Your task to perform on an android device: read, delete, or share a saved page in the chrome app Image 0: 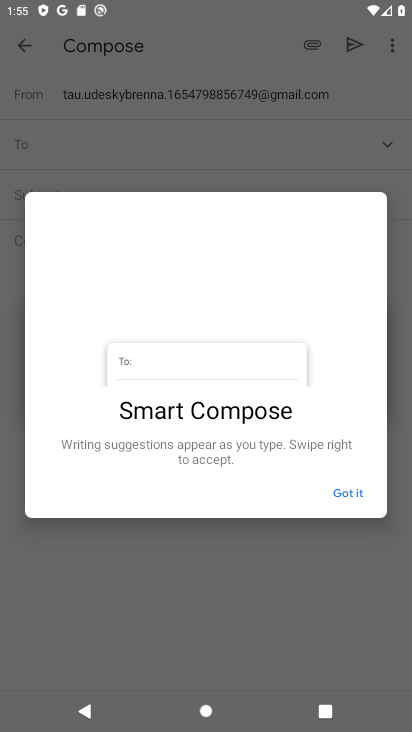
Step 0: press home button
Your task to perform on an android device: read, delete, or share a saved page in the chrome app Image 1: 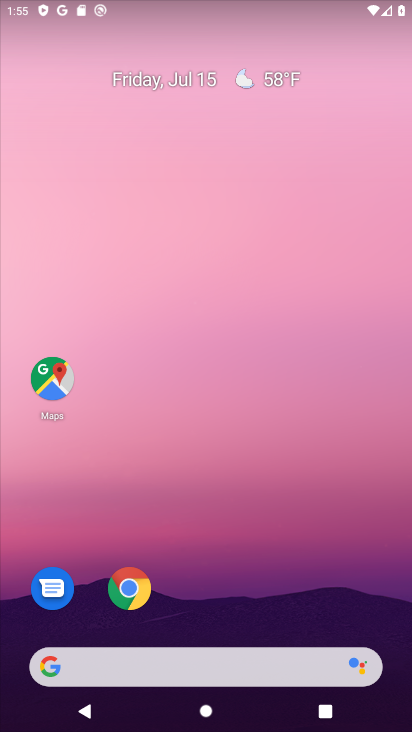
Step 1: click (141, 606)
Your task to perform on an android device: read, delete, or share a saved page in the chrome app Image 2: 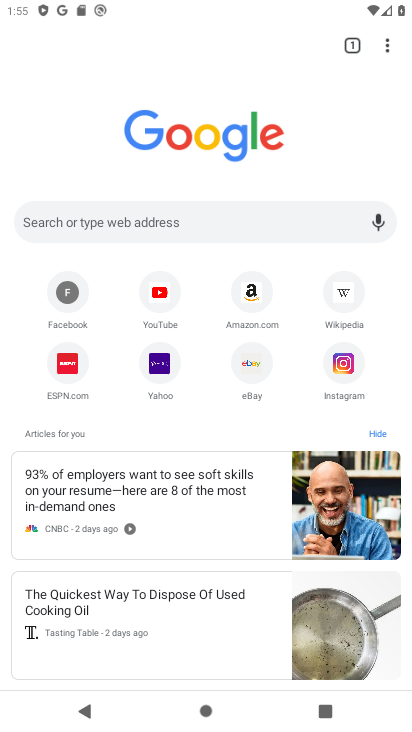
Step 2: click (401, 41)
Your task to perform on an android device: read, delete, or share a saved page in the chrome app Image 3: 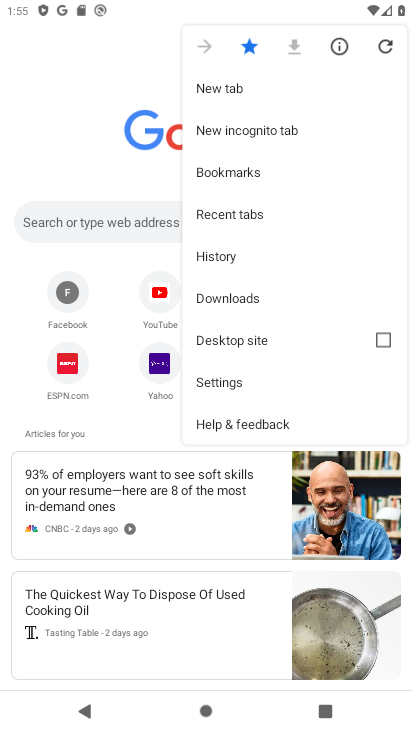
Step 3: click (237, 306)
Your task to perform on an android device: read, delete, or share a saved page in the chrome app Image 4: 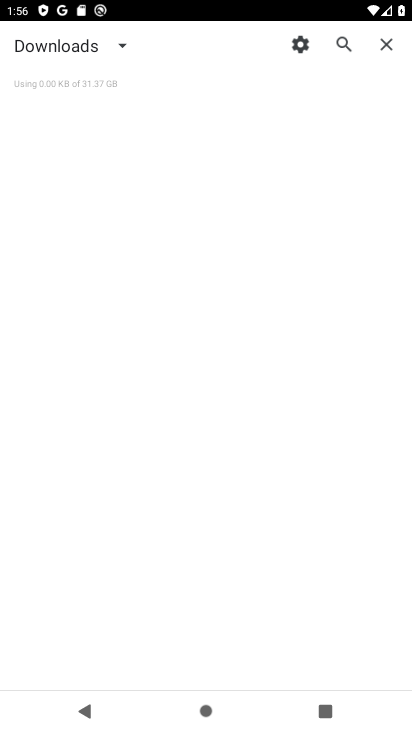
Step 4: click (381, 51)
Your task to perform on an android device: read, delete, or share a saved page in the chrome app Image 5: 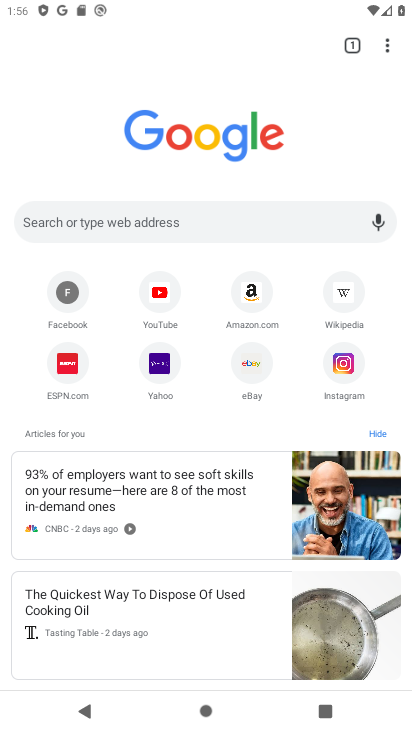
Step 5: click (381, 51)
Your task to perform on an android device: read, delete, or share a saved page in the chrome app Image 6: 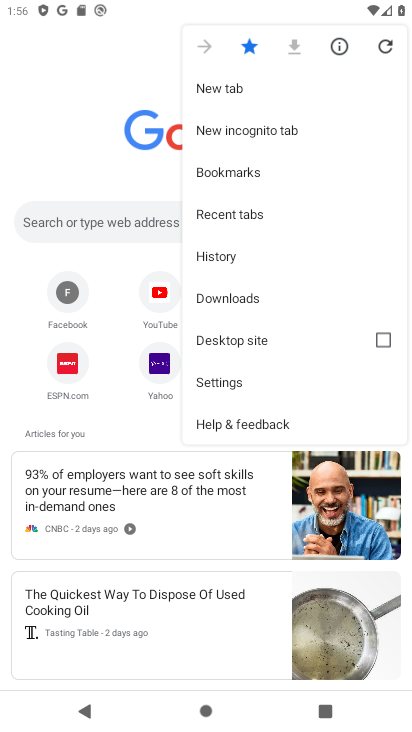
Step 6: click (254, 306)
Your task to perform on an android device: read, delete, or share a saved page in the chrome app Image 7: 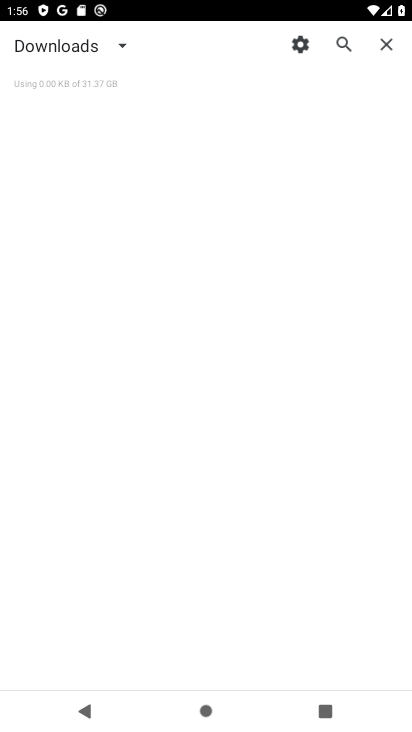
Step 7: task complete